Your task to perform on an android device: Open Google Image 0: 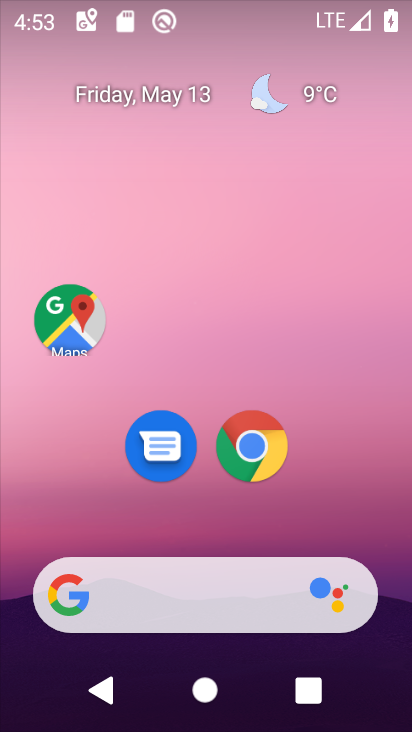
Step 0: drag from (263, 526) to (266, 18)
Your task to perform on an android device: Open Google Image 1: 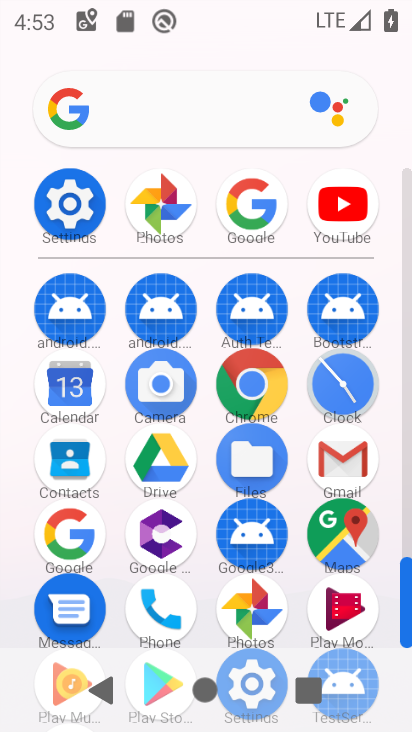
Step 1: click (70, 530)
Your task to perform on an android device: Open Google Image 2: 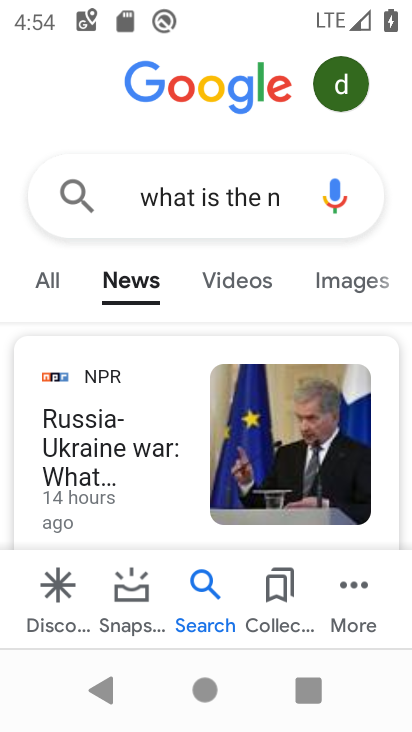
Step 2: task complete